Your task to perform on an android device: open app "Move to iOS" (install if not already installed) and go to login screen Image 0: 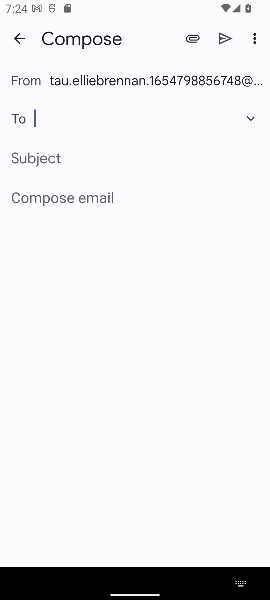
Step 0: press home button
Your task to perform on an android device: open app "Move to iOS" (install if not already installed) and go to login screen Image 1: 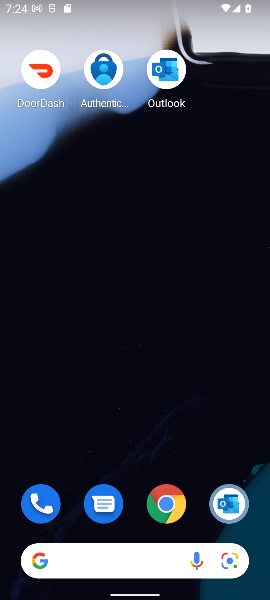
Step 1: drag from (123, 552) to (89, 18)
Your task to perform on an android device: open app "Move to iOS" (install if not already installed) and go to login screen Image 2: 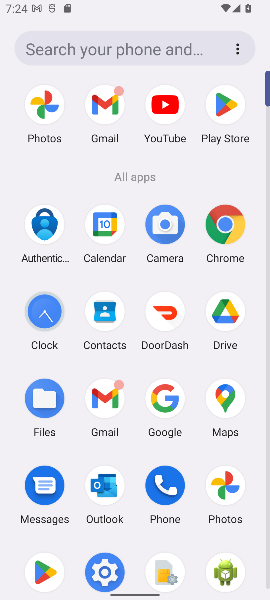
Step 2: click (215, 117)
Your task to perform on an android device: open app "Move to iOS" (install if not already installed) and go to login screen Image 3: 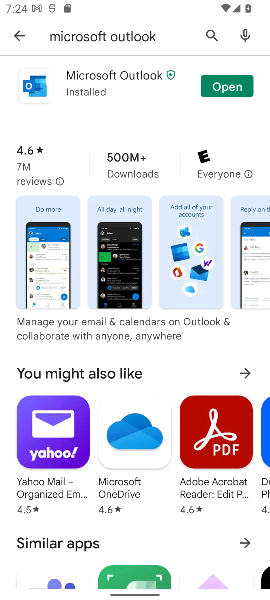
Step 3: click (218, 29)
Your task to perform on an android device: open app "Move to iOS" (install if not already installed) and go to login screen Image 4: 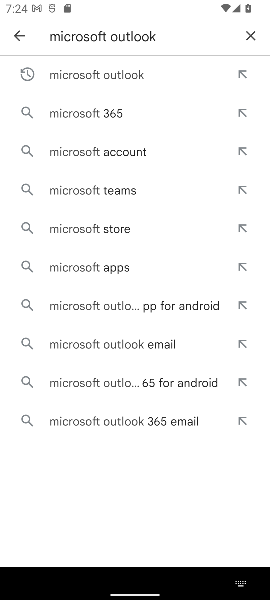
Step 4: click (250, 31)
Your task to perform on an android device: open app "Move to iOS" (install if not already installed) and go to login screen Image 5: 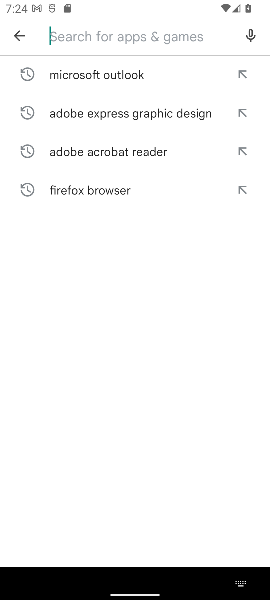
Step 5: type "Move to iOS"
Your task to perform on an android device: open app "Move to iOS" (install if not already installed) and go to login screen Image 6: 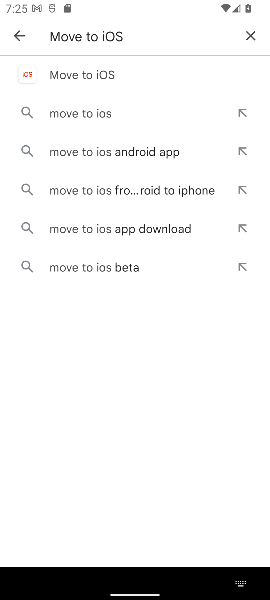
Step 6: click (99, 69)
Your task to perform on an android device: open app "Move to iOS" (install if not already installed) and go to login screen Image 7: 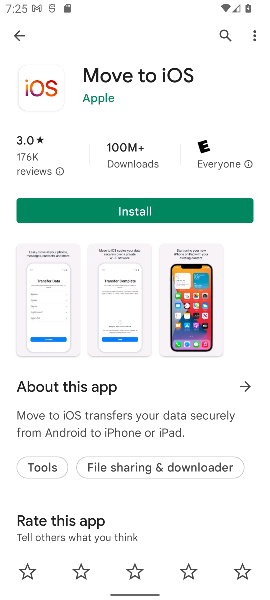
Step 7: click (146, 215)
Your task to perform on an android device: open app "Move to iOS" (install if not already installed) and go to login screen Image 8: 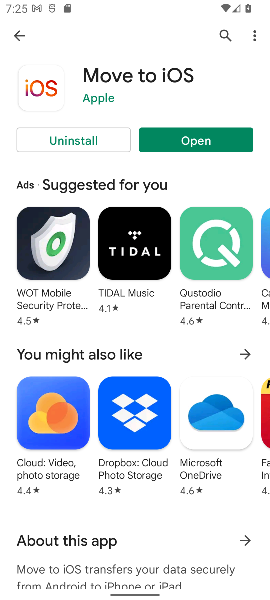
Step 8: click (205, 145)
Your task to perform on an android device: open app "Move to iOS" (install if not already installed) and go to login screen Image 9: 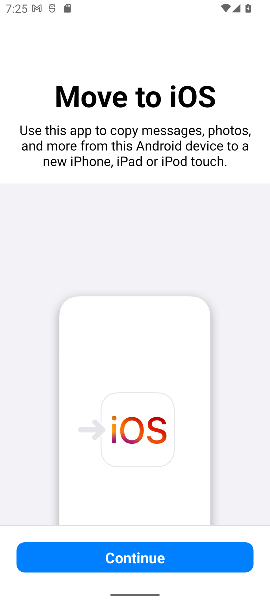
Step 9: click (127, 554)
Your task to perform on an android device: open app "Move to iOS" (install if not already installed) and go to login screen Image 10: 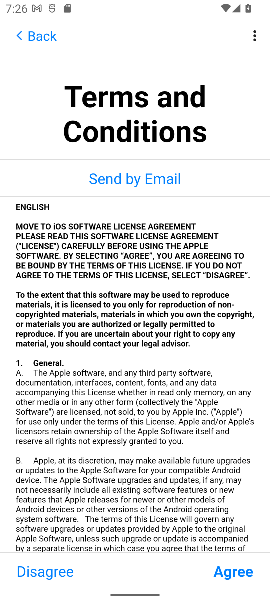
Step 10: click (229, 575)
Your task to perform on an android device: open app "Move to iOS" (install if not already installed) and go to login screen Image 11: 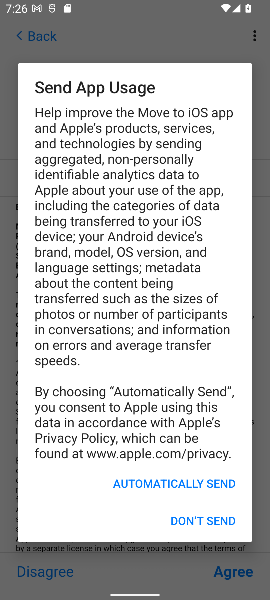
Step 11: click (202, 526)
Your task to perform on an android device: open app "Move to iOS" (install if not already installed) and go to login screen Image 12: 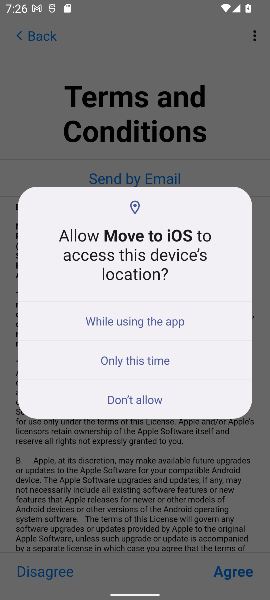
Step 12: click (155, 323)
Your task to perform on an android device: open app "Move to iOS" (install if not already installed) and go to login screen Image 13: 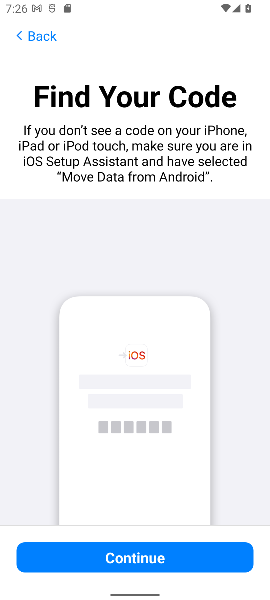
Step 13: click (130, 557)
Your task to perform on an android device: open app "Move to iOS" (install if not already installed) and go to login screen Image 14: 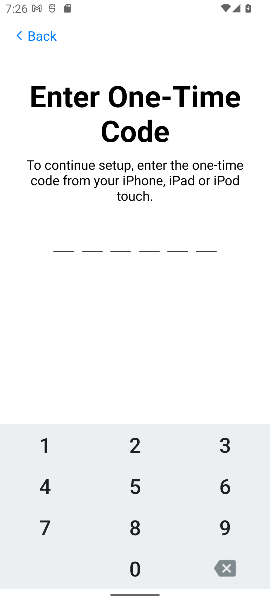
Step 14: task complete